Your task to perform on an android device: Open the map Image 0: 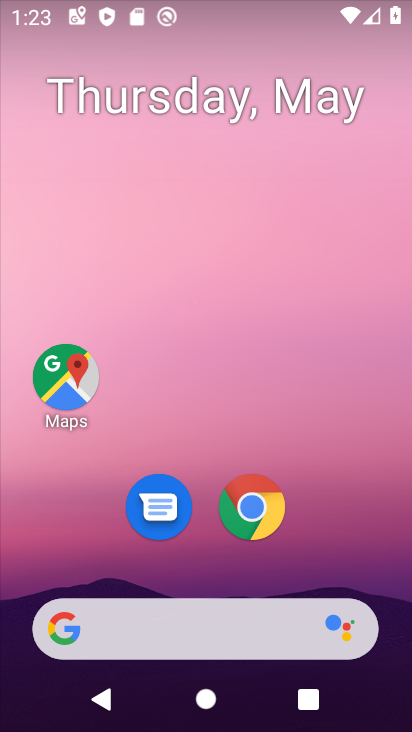
Step 0: drag from (126, 546) to (198, 0)
Your task to perform on an android device: Open the map Image 1: 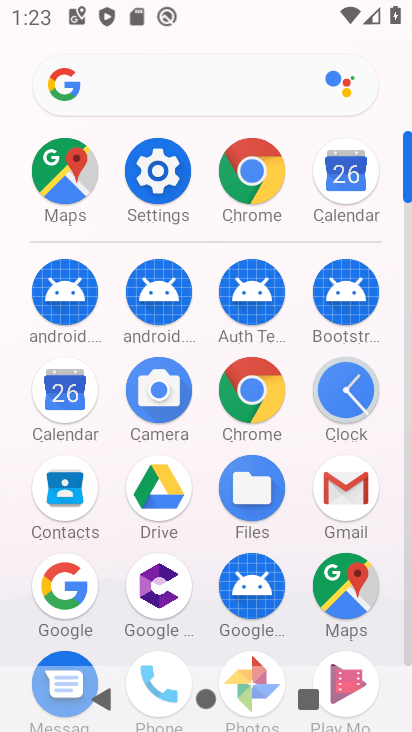
Step 1: click (331, 591)
Your task to perform on an android device: Open the map Image 2: 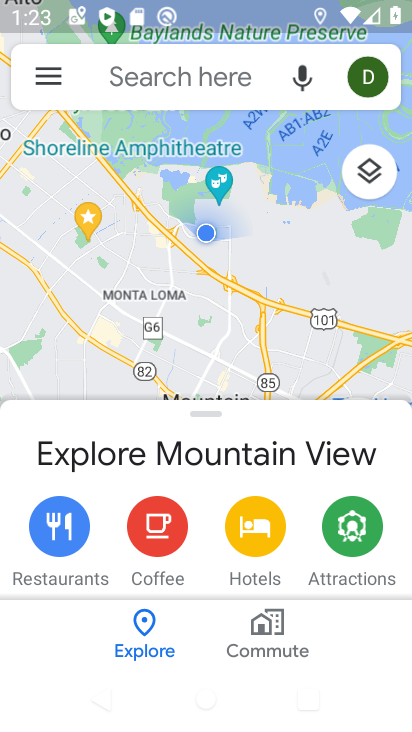
Step 2: task complete